Your task to perform on an android device: Open CNN.com Image 0: 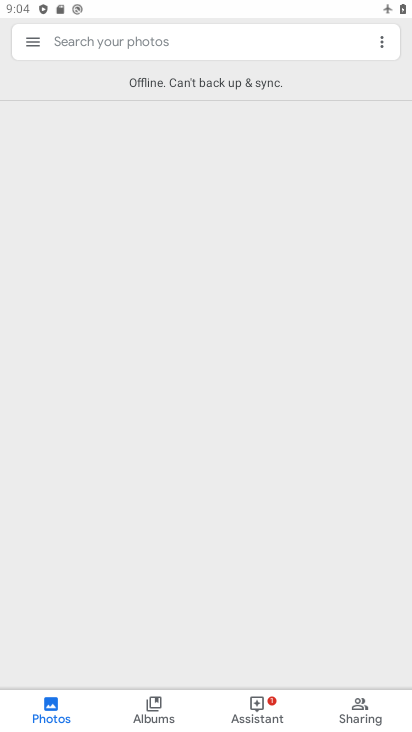
Step 0: press home button
Your task to perform on an android device: Open CNN.com Image 1: 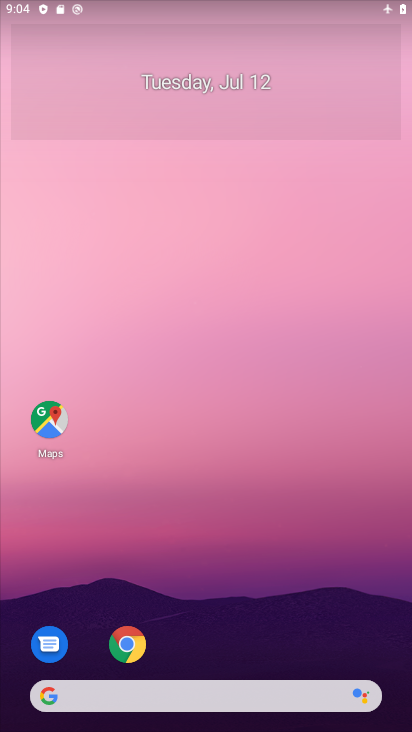
Step 1: click (137, 644)
Your task to perform on an android device: Open CNN.com Image 2: 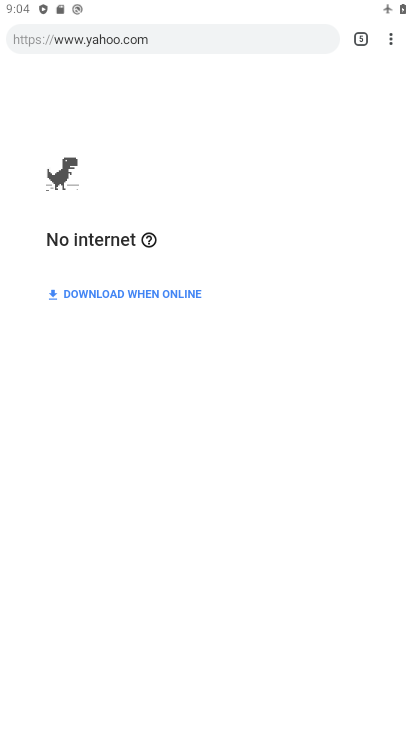
Step 2: click (205, 44)
Your task to perform on an android device: Open CNN.com Image 3: 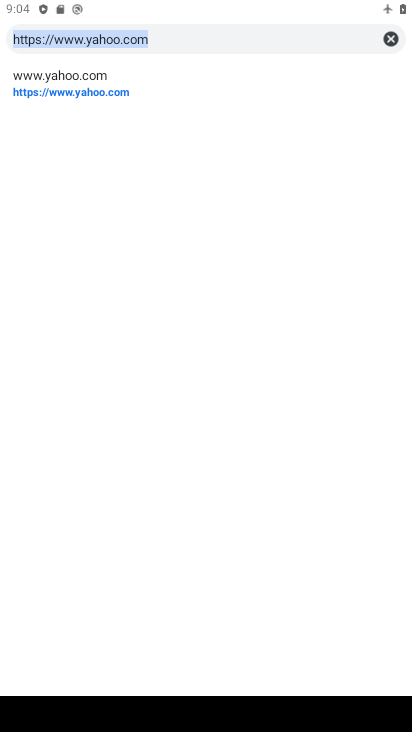
Step 3: click (396, 34)
Your task to perform on an android device: Open CNN.com Image 4: 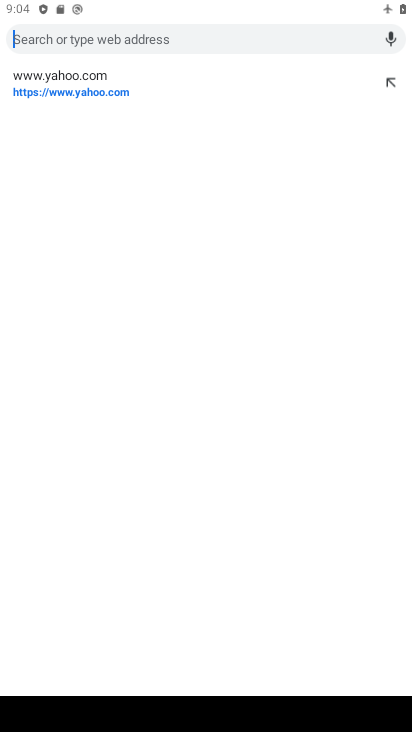
Step 4: type "CNN.com"
Your task to perform on an android device: Open CNN.com Image 5: 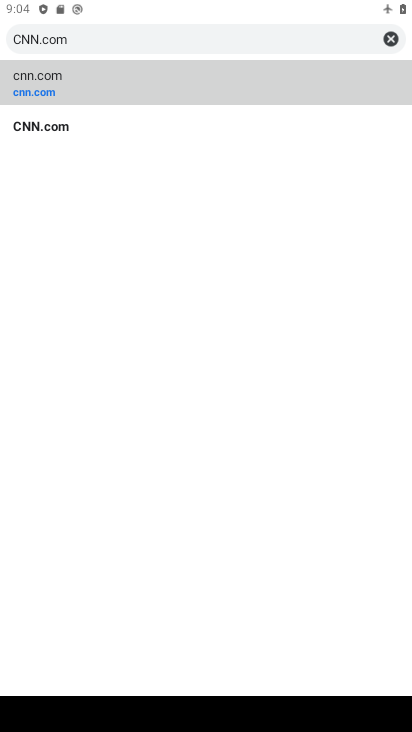
Step 5: click (131, 94)
Your task to perform on an android device: Open CNN.com Image 6: 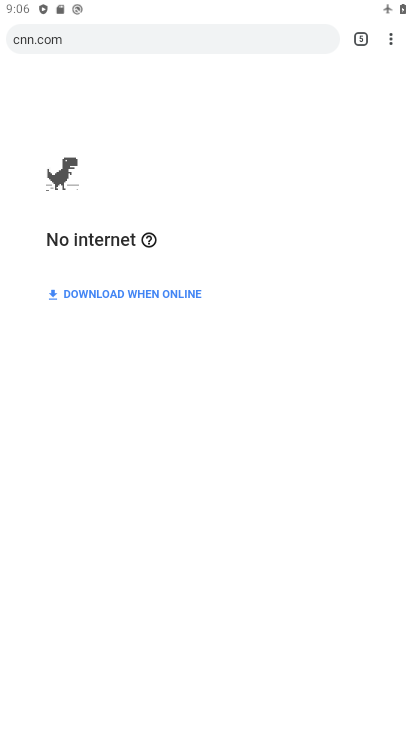
Step 6: task complete